Your task to perform on an android device: Do I have any events this weekend? Image 0: 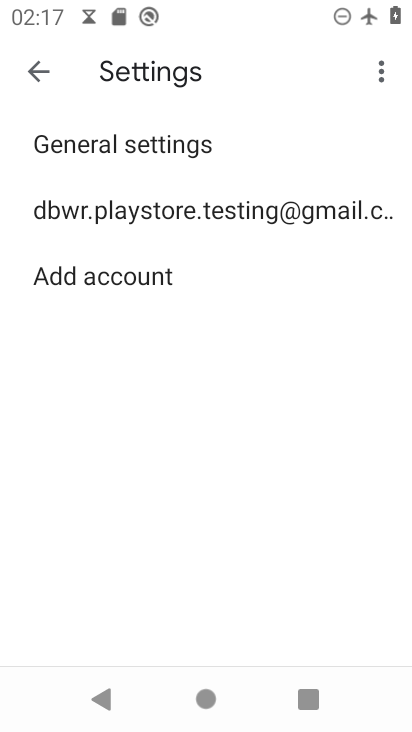
Step 0: press home button
Your task to perform on an android device: Do I have any events this weekend? Image 1: 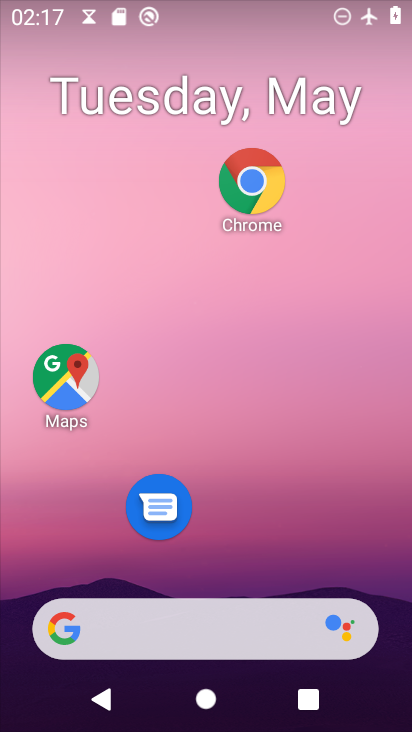
Step 1: click (226, 570)
Your task to perform on an android device: Do I have any events this weekend? Image 2: 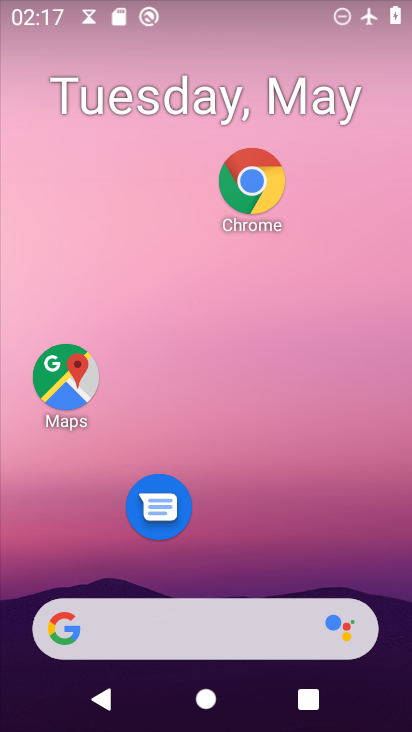
Step 2: drag from (290, 289) to (305, 225)
Your task to perform on an android device: Do I have any events this weekend? Image 3: 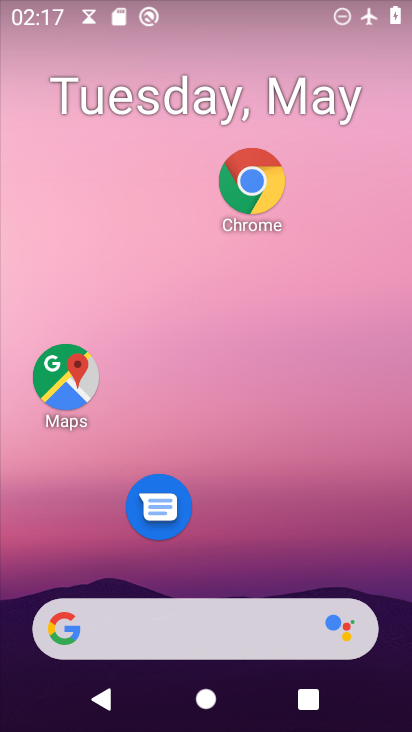
Step 3: drag from (290, 624) to (332, 166)
Your task to perform on an android device: Do I have any events this weekend? Image 4: 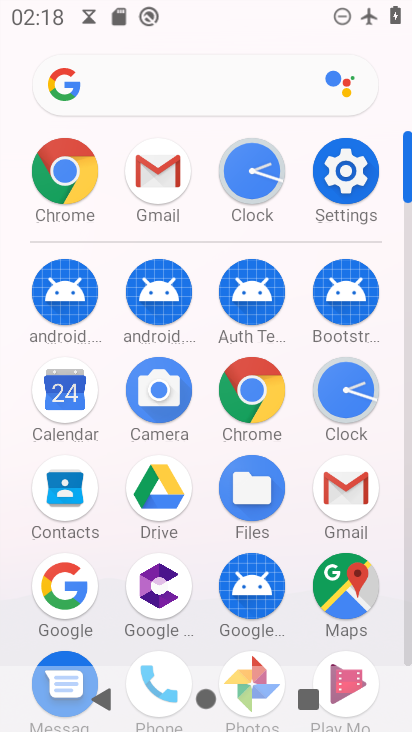
Step 4: click (34, 421)
Your task to perform on an android device: Do I have any events this weekend? Image 5: 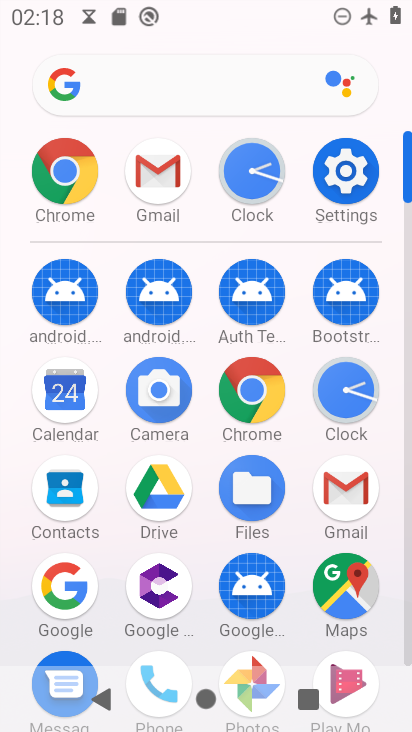
Step 5: click (70, 365)
Your task to perform on an android device: Do I have any events this weekend? Image 6: 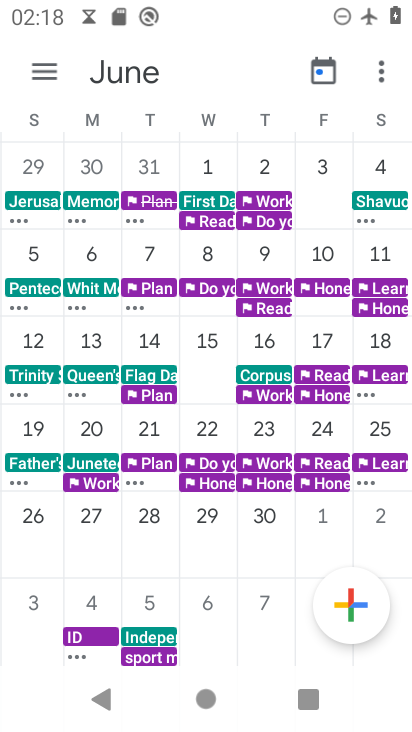
Step 6: task complete